Your task to perform on an android device: Open battery settings Image 0: 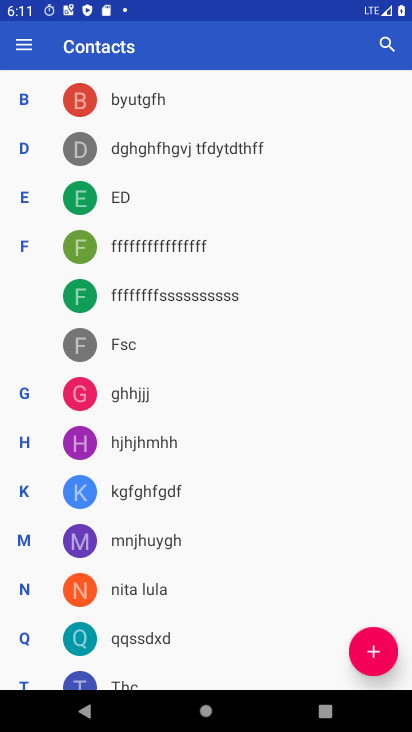
Step 0: press home button
Your task to perform on an android device: Open battery settings Image 1: 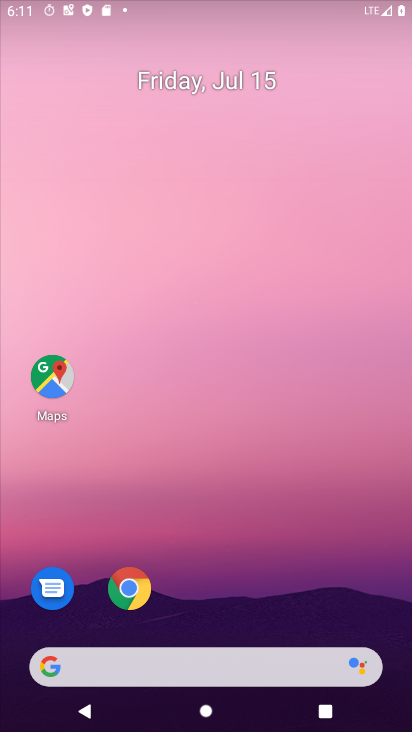
Step 1: drag from (287, 638) to (286, 211)
Your task to perform on an android device: Open battery settings Image 2: 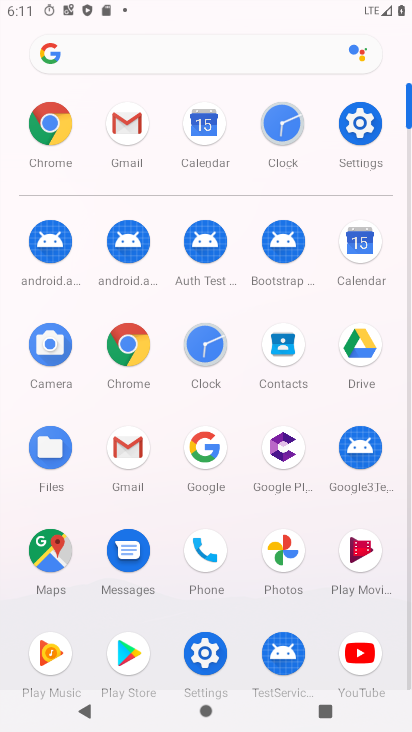
Step 2: click (367, 123)
Your task to perform on an android device: Open battery settings Image 3: 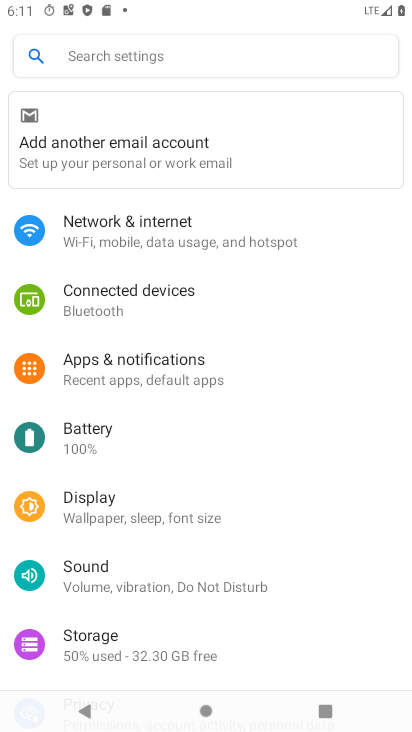
Step 3: click (140, 432)
Your task to perform on an android device: Open battery settings Image 4: 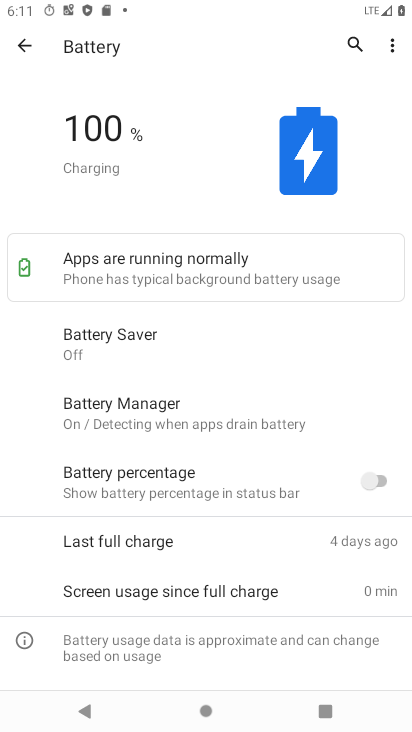
Step 4: task complete